Your task to perform on an android device: Go to sound settings Image 0: 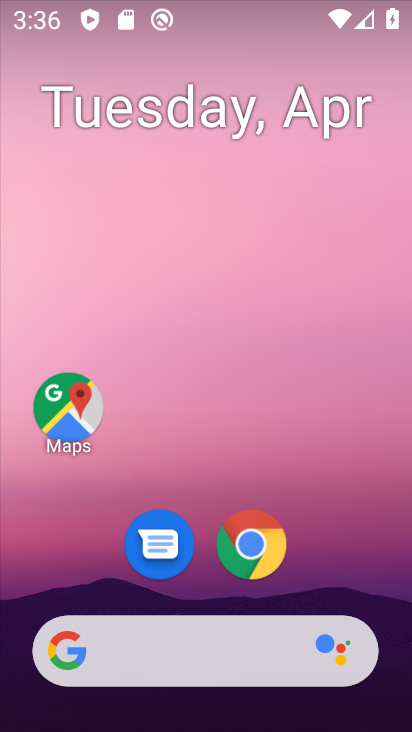
Step 0: drag from (356, 417) to (384, 123)
Your task to perform on an android device: Go to sound settings Image 1: 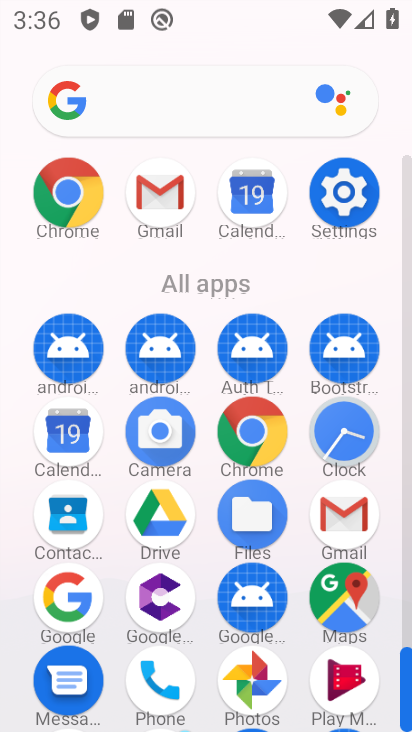
Step 1: click (352, 210)
Your task to perform on an android device: Go to sound settings Image 2: 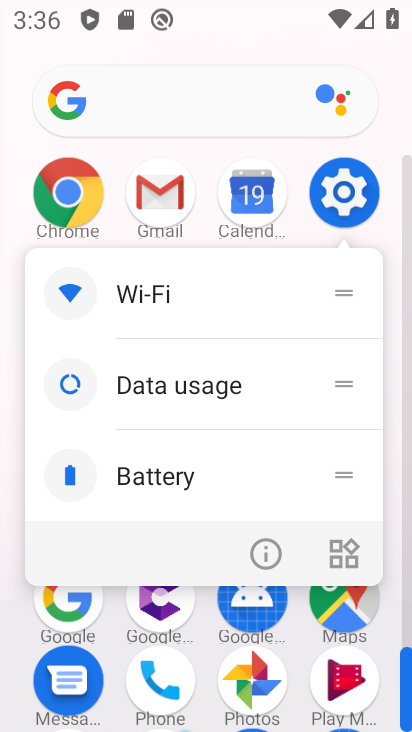
Step 2: click (355, 207)
Your task to perform on an android device: Go to sound settings Image 3: 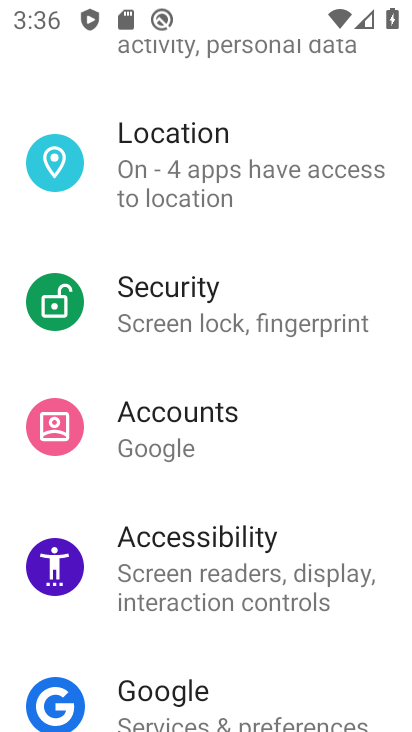
Step 3: drag from (285, 245) to (185, 621)
Your task to perform on an android device: Go to sound settings Image 4: 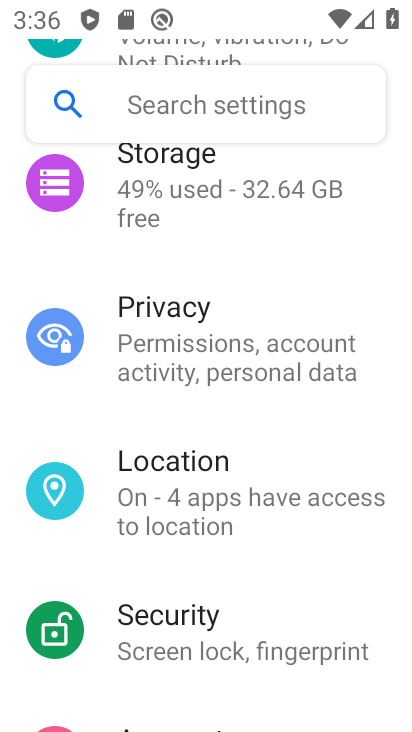
Step 4: drag from (251, 193) to (155, 579)
Your task to perform on an android device: Go to sound settings Image 5: 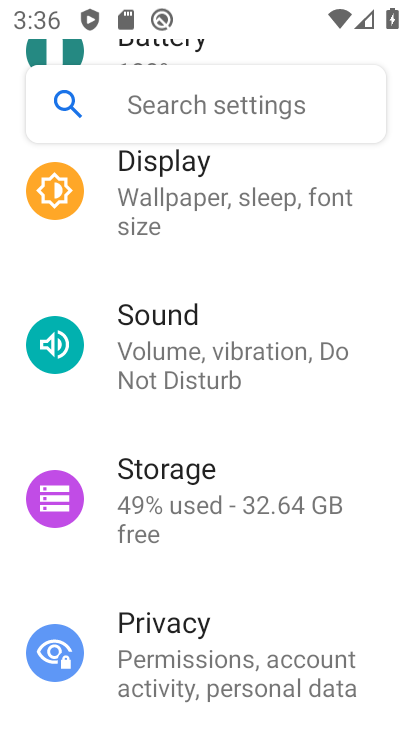
Step 5: click (159, 374)
Your task to perform on an android device: Go to sound settings Image 6: 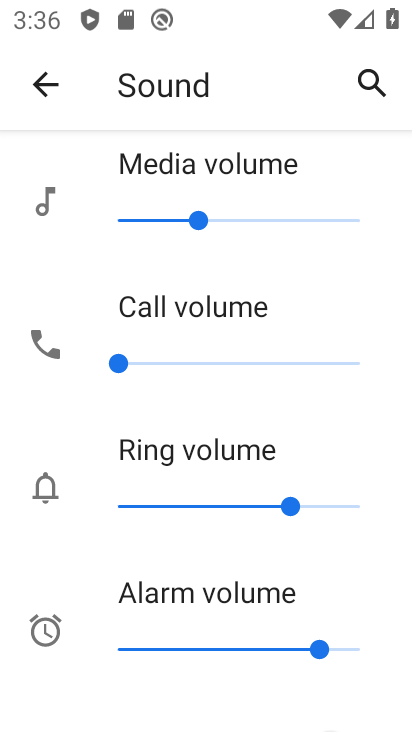
Step 6: task complete